Your task to perform on an android device: Open location settings Image 0: 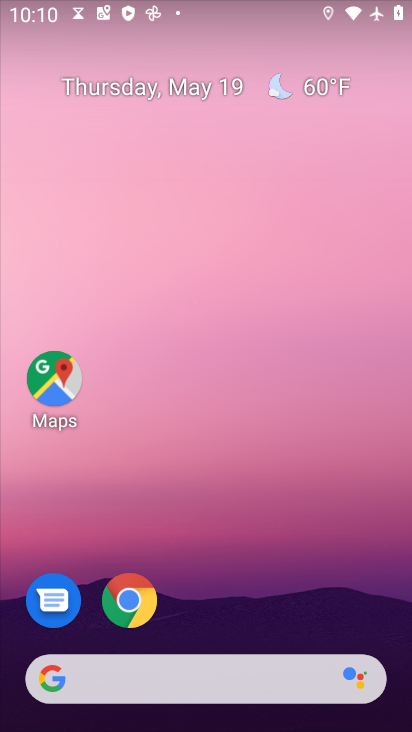
Step 0: drag from (312, 551) to (199, 10)
Your task to perform on an android device: Open location settings Image 1: 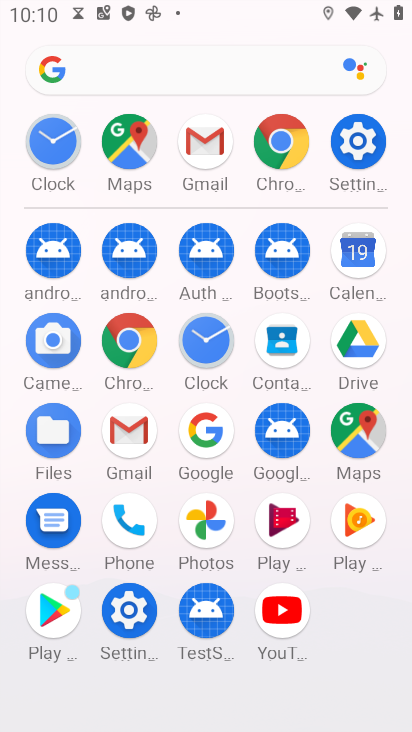
Step 1: drag from (3, 549) to (17, 223)
Your task to perform on an android device: Open location settings Image 2: 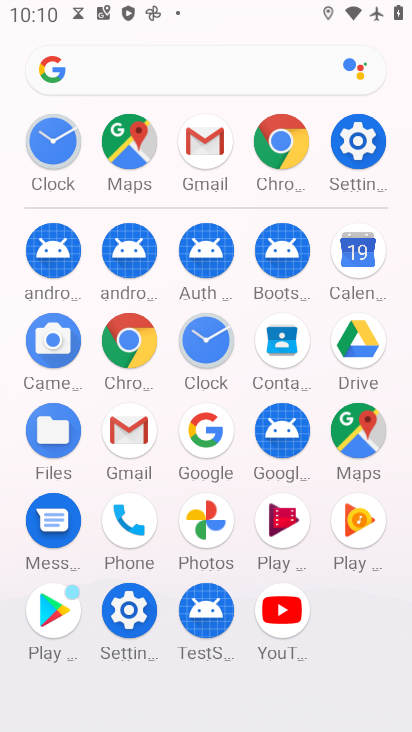
Step 2: click (128, 612)
Your task to perform on an android device: Open location settings Image 3: 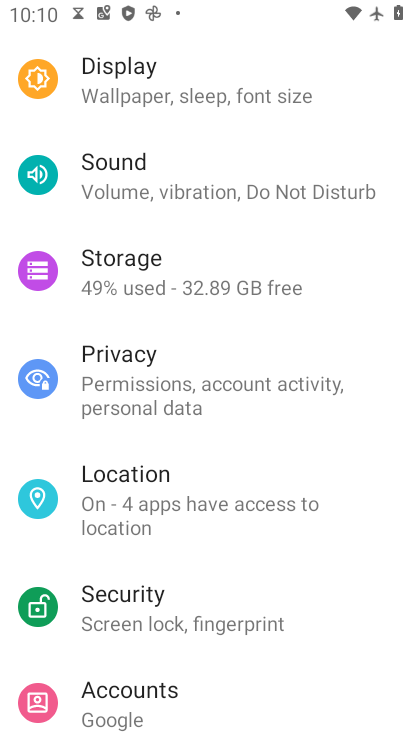
Step 3: click (147, 494)
Your task to perform on an android device: Open location settings Image 4: 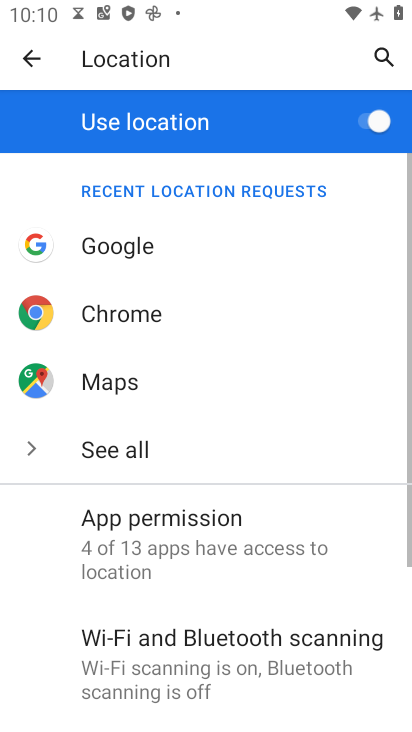
Step 4: drag from (229, 583) to (276, 190)
Your task to perform on an android device: Open location settings Image 5: 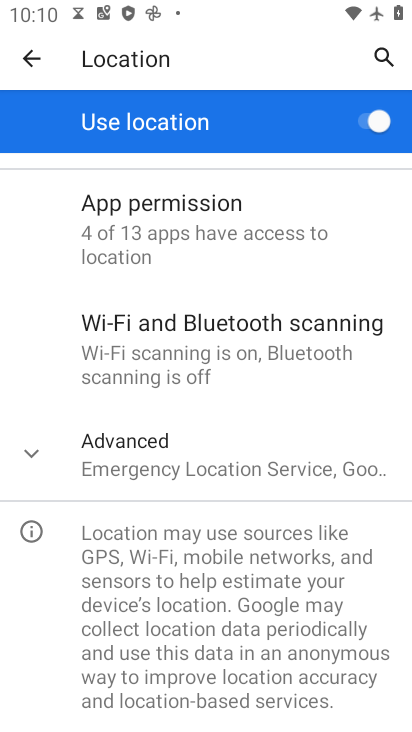
Step 5: click (121, 461)
Your task to perform on an android device: Open location settings Image 6: 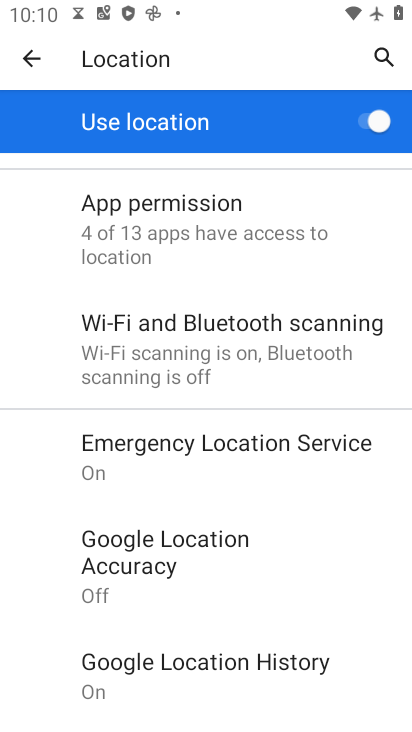
Step 6: task complete